Your task to perform on an android device: Open Wikipedia Image 0: 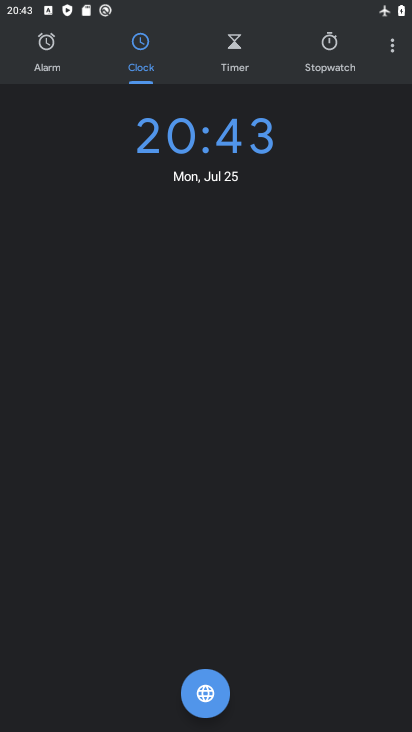
Step 0: press home button
Your task to perform on an android device: Open Wikipedia Image 1: 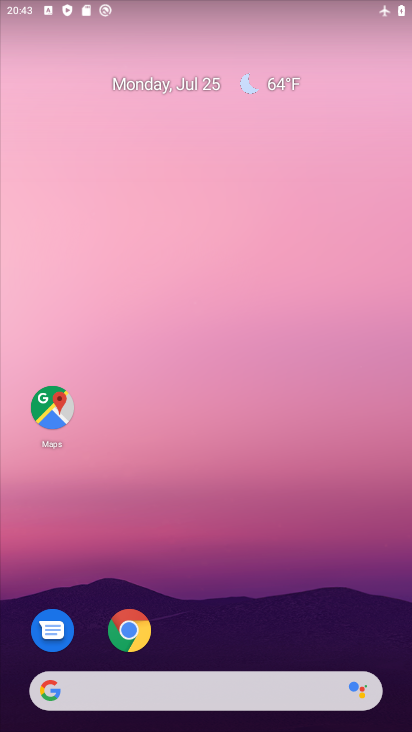
Step 1: click (129, 633)
Your task to perform on an android device: Open Wikipedia Image 2: 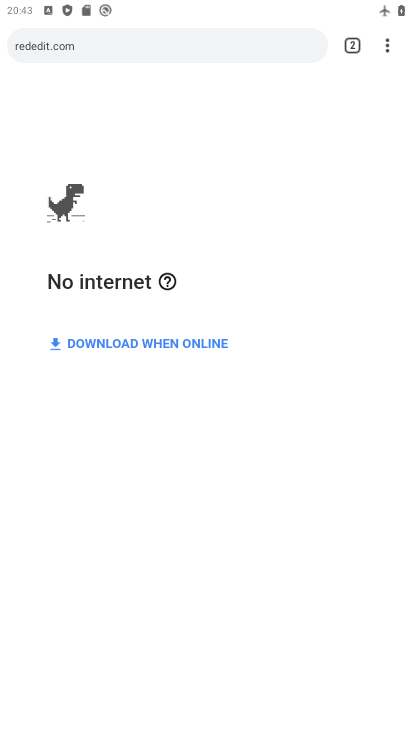
Step 2: click (101, 48)
Your task to perform on an android device: Open Wikipedia Image 3: 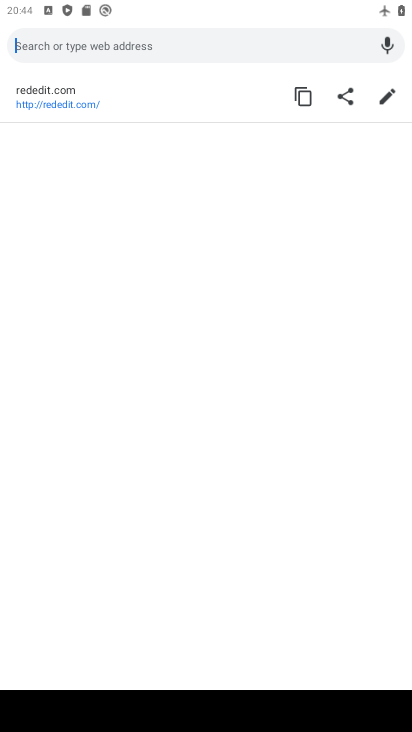
Step 3: type "wikipedia"
Your task to perform on an android device: Open Wikipedia Image 4: 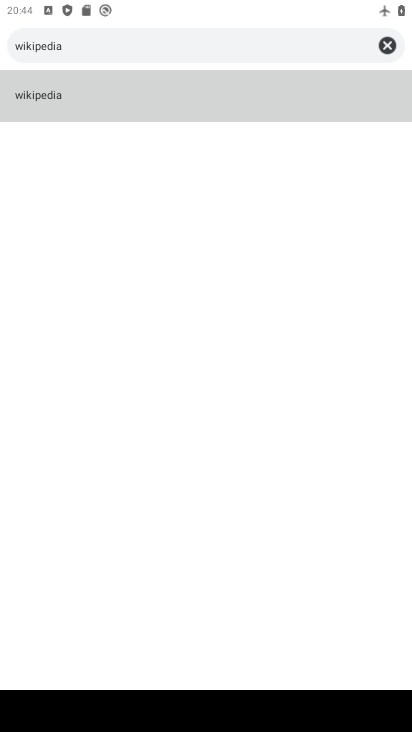
Step 4: click (47, 97)
Your task to perform on an android device: Open Wikipedia Image 5: 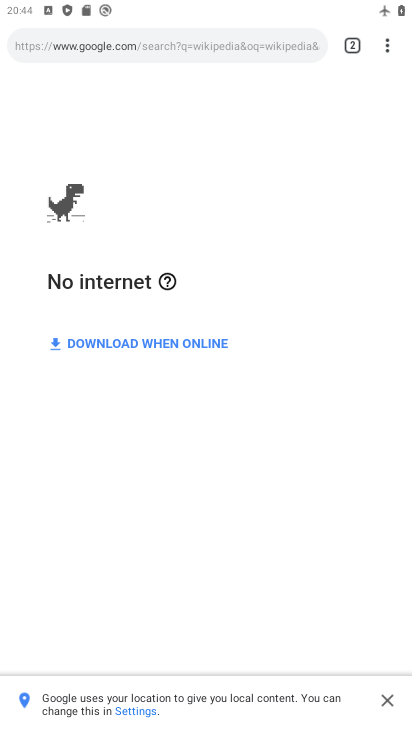
Step 5: task complete